Your task to perform on an android device: find photos in the google photos app Image 0: 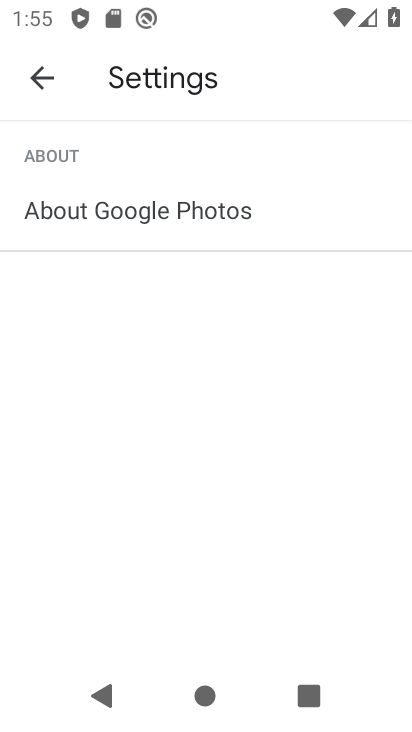
Step 0: press home button
Your task to perform on an android device: find photos in the google photos app Image 1: 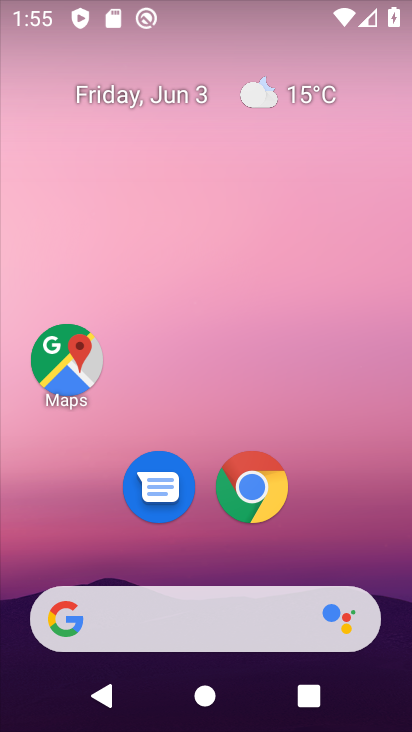
Step 1: drag from (329, 447) to (206, 24)
Your task to perform on an android device: find photos in the google photos app Image 2: 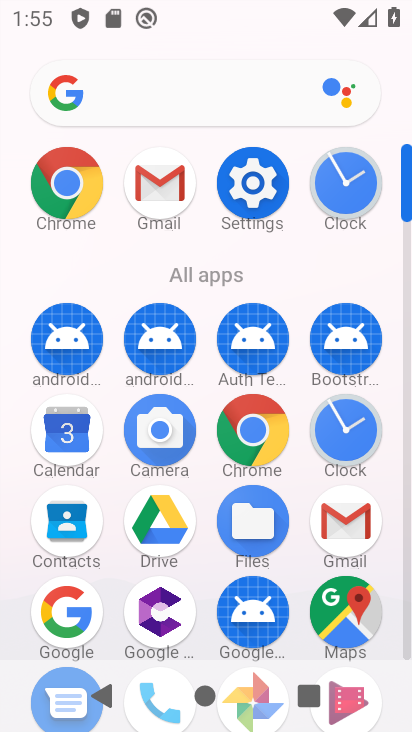
Step 2: drag from (224, 636) to (185, 224)
Your task to perform on an android device: find photos in the google photos app Image 3: 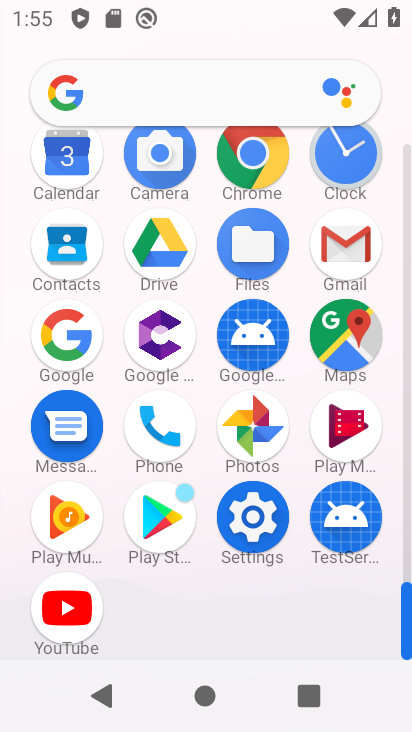
Step 3: click (247, 423)
Your task to perform on an android device: find photos in the google photos app Image 4: 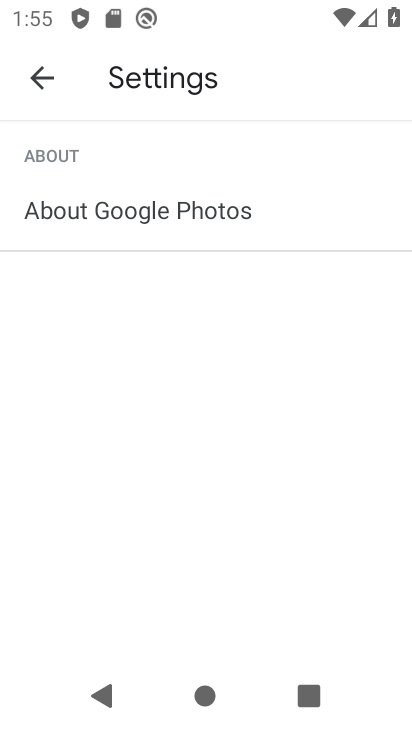
Step 4: click (43, 67)
Your task to perform on an android device: find photos in the google photos app Image 5: 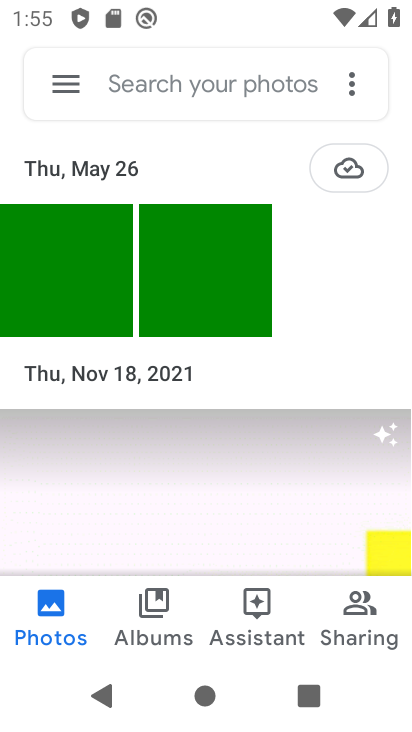
Step 5: task complete